Your task to perform on an android device: search for console tables on article.com Image 0: 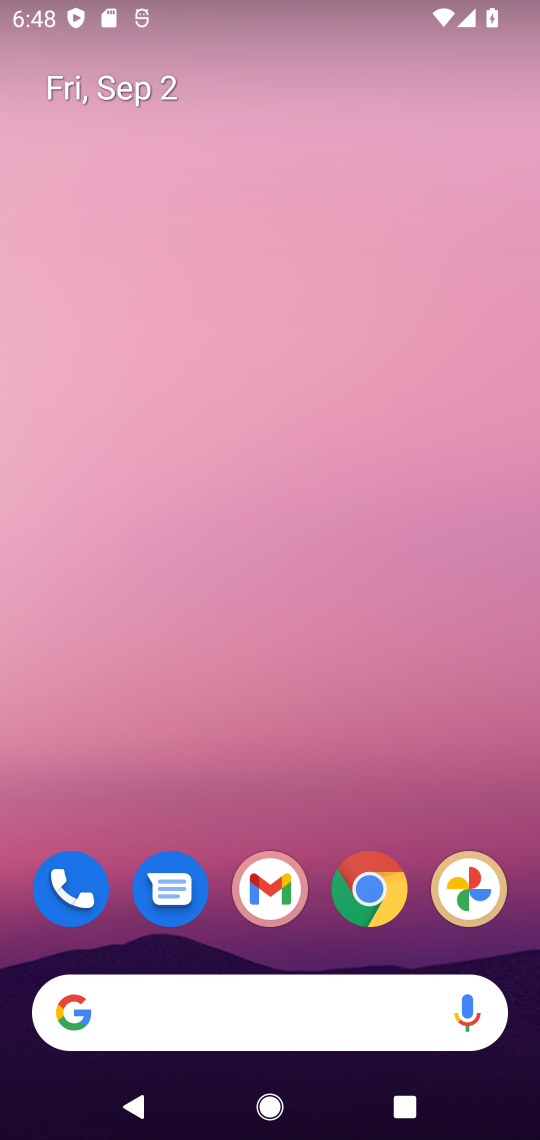
Step 0: click (300, 1013)
Your task to perform on an android device: search for console tables on article.com Image 1: 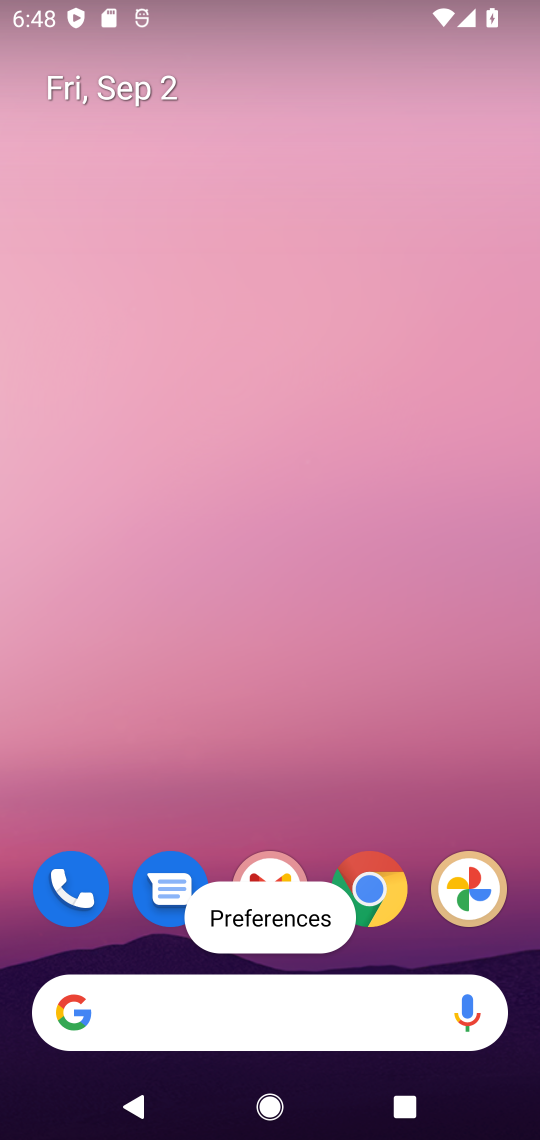
Step 1: click (296, 995)
Your task to perform on an android device: search for console tables on article.com Image 2: 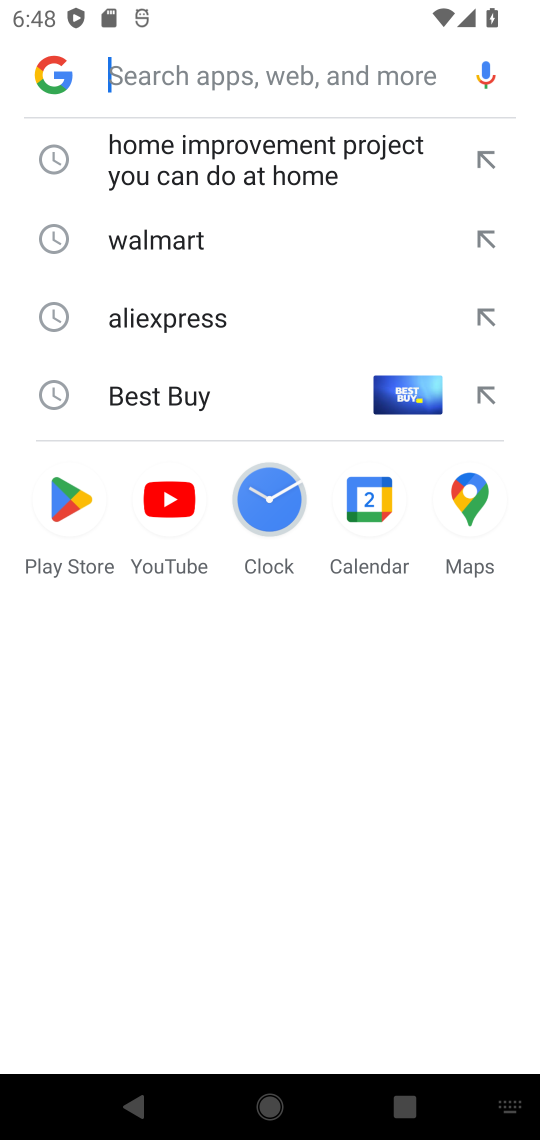
Step 2: type "article.com"
Your task to perform on an android device: search for console tables on article.com Image 3: 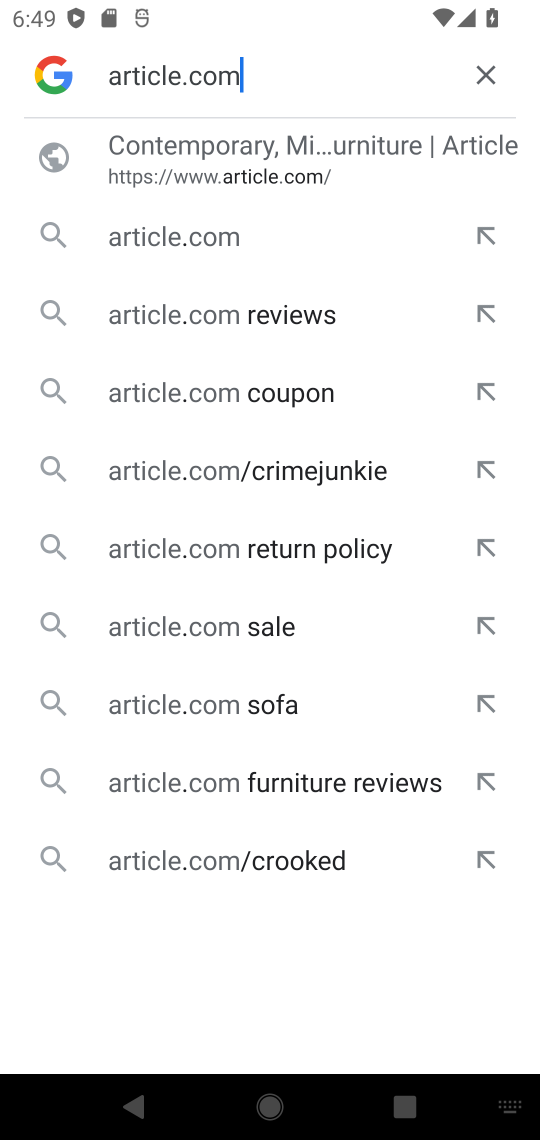
Step 3: click (224, 240)
Your task to perform on an android device: search for console tables on article.com Image 4: 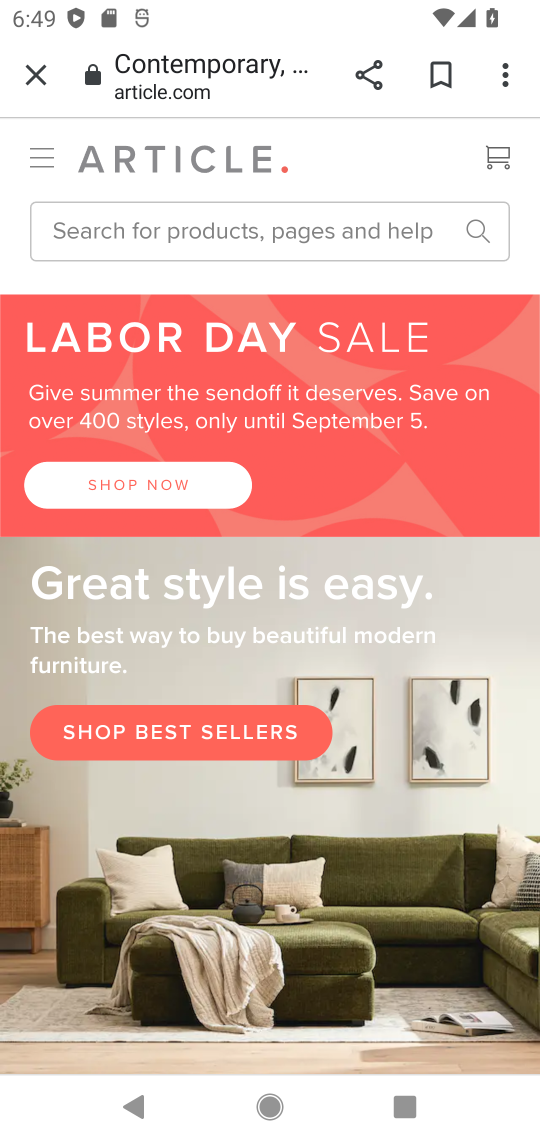
Step 4: click (262, 225)
Your task to perform on an android device: search for console tables on article.com Image 5: 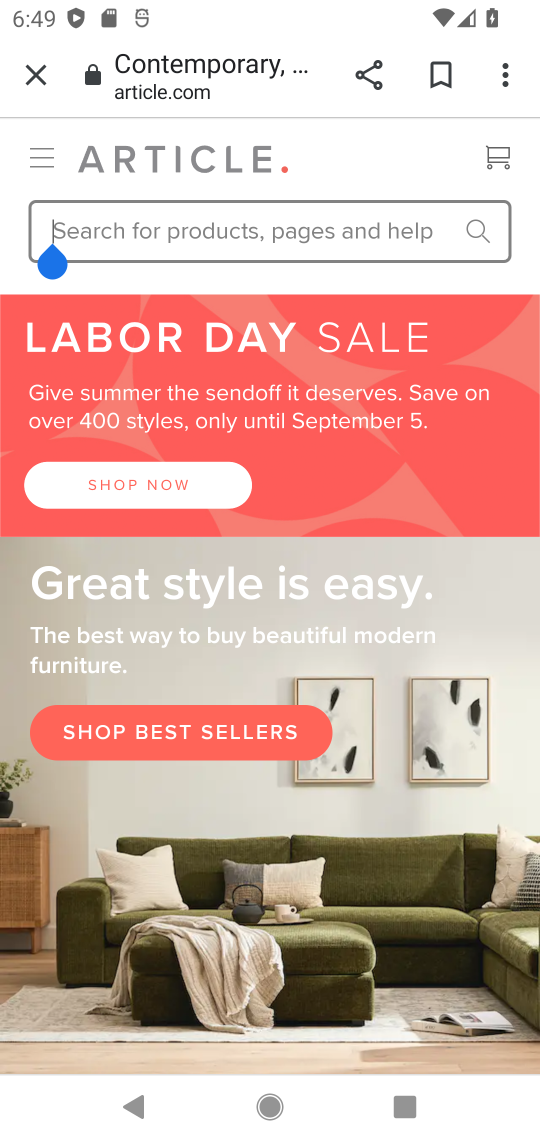
Step 5: type "console tables"
Your task to perform on an android device: search for console tables on article.com Image 6: 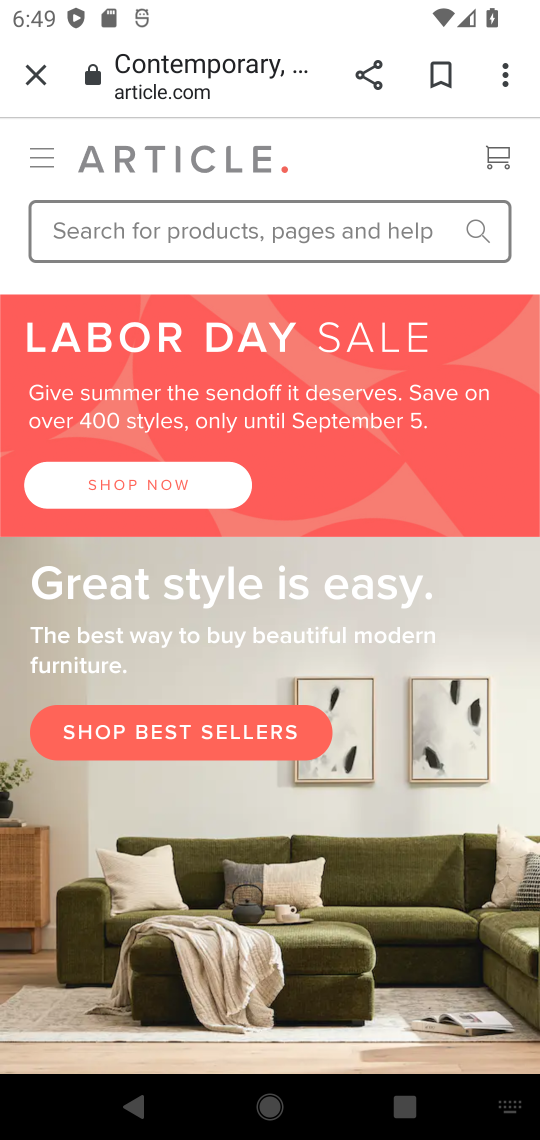
Step 6: type ""
Your task to perform on an android device: search for console tables on article.com Image 7: 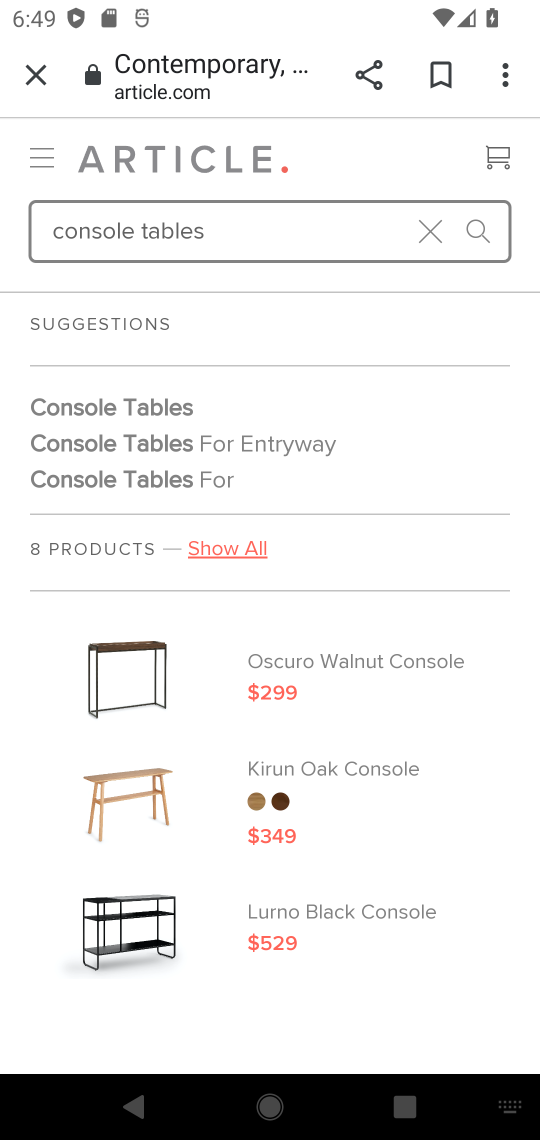
Step 7: click (487, 242)
Your task to perform on an android device: search for console tables on article.com Image 8: 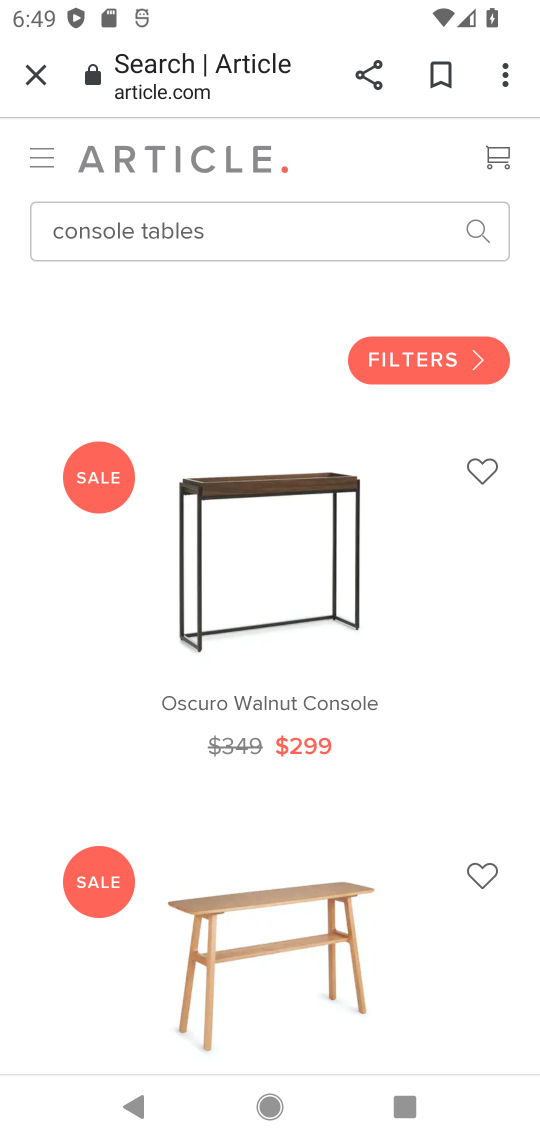
Step 8: task complete